Your task to perform on an android device: Open calendar and show me the second week of next month Image 0: 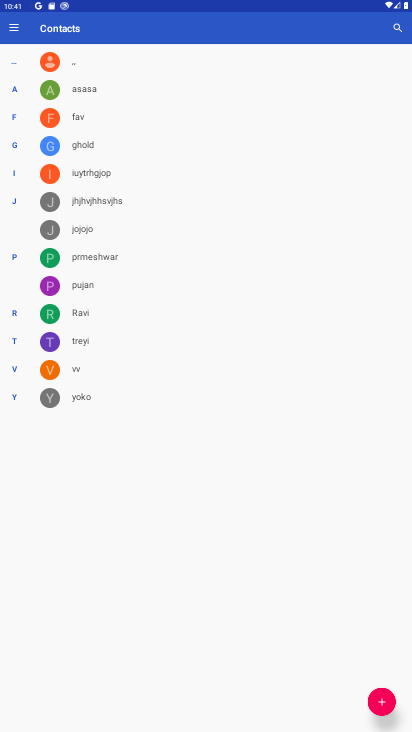
Step 0: press home button
Your task to perform on an android device: Open calendar and show me the second week of next month Image 1: 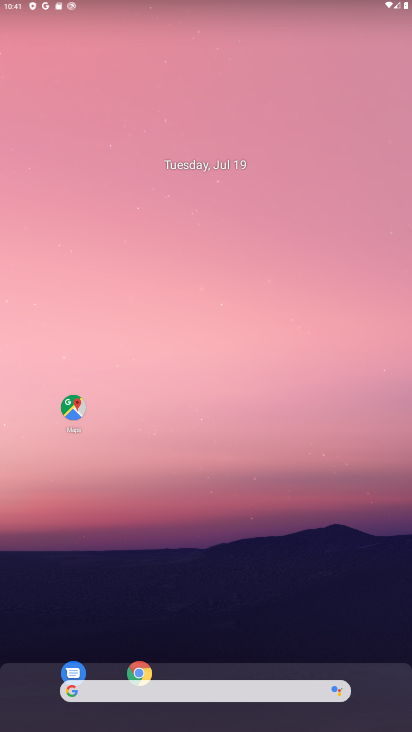
Step 1: drag from (385, 679) to (343, 89)
Your task to perform on an android device: Open calendar and show me the second week of next month Image 2: 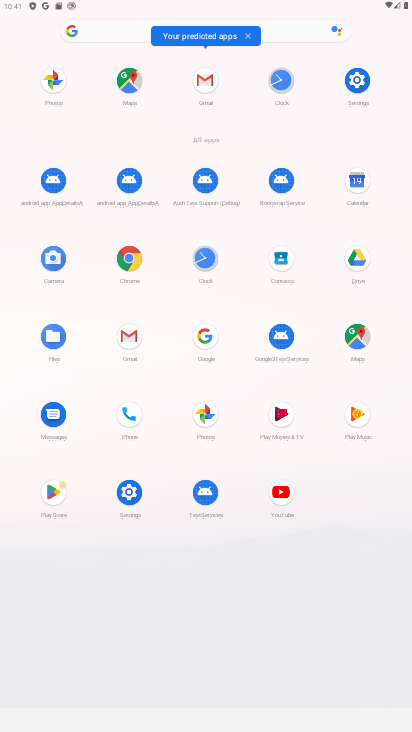
Step 2: click (357, 185)
Your task to perform on an android device: Open calendar and show me the second week of next month Image 3: 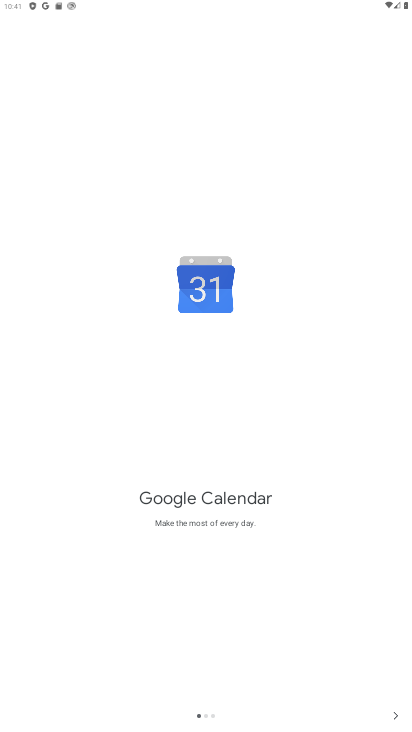
Step 3: click (393, 712)
Your task to perform on an android device: Open calendar and show me the second week of next month Image 4: 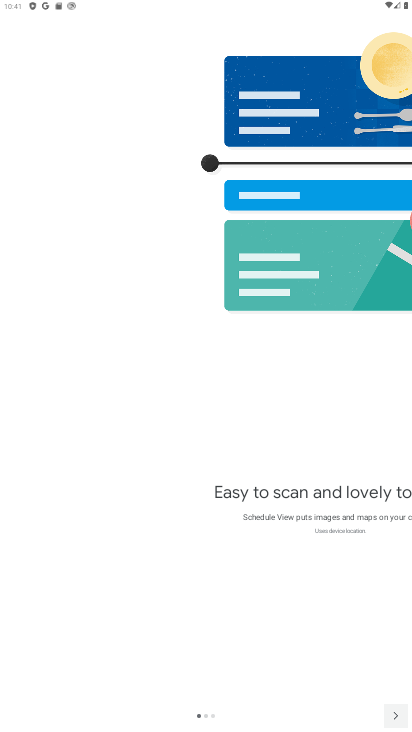
Step 4: click (393, 712)
Your task to perform on an android device: Open calendar and show me the second week of next month Image 5: 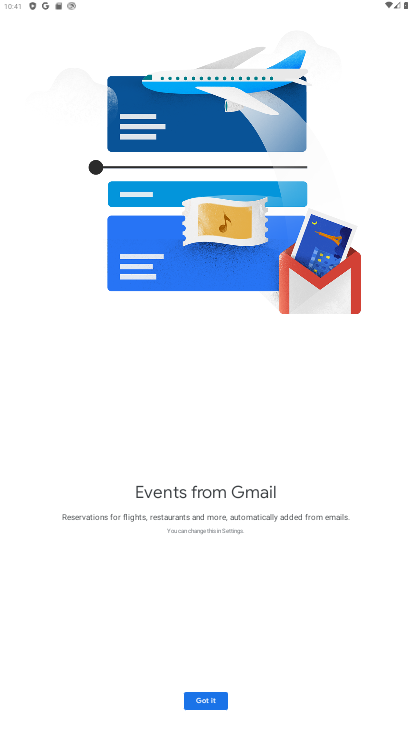
Step 5: click (199, 699)
Your task to perform on an android device: Open calendar and show me the second week of next month Image 6: 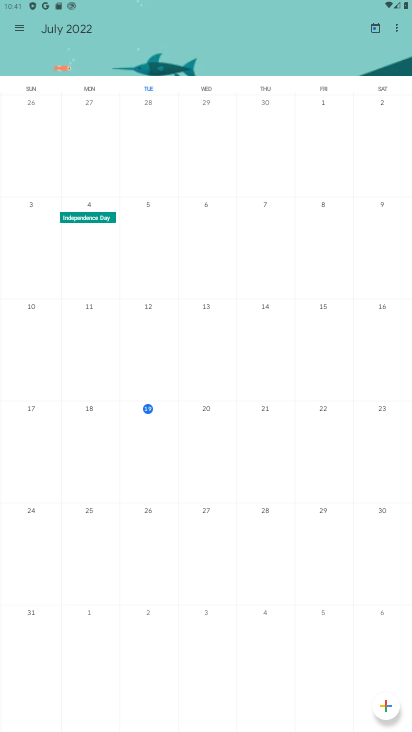
Step 6: click (14, 24)
Your task to perform on an android device: Open calendar and show me the second week of next month Image 7: 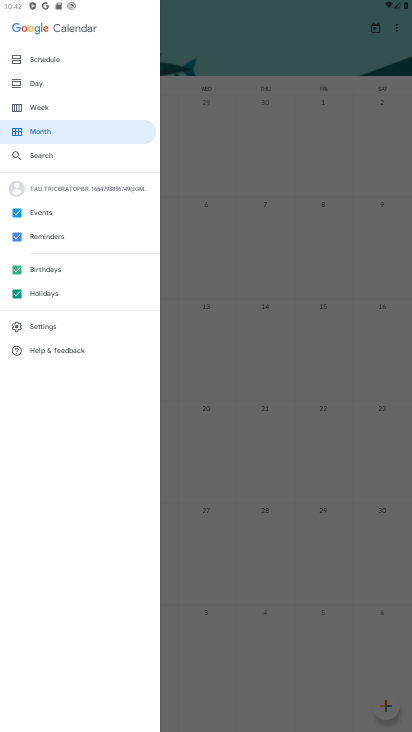
Step 7: click (35, 82)
Your task to perform on an android device: Open calendar and show me the second week of next month Image 8: 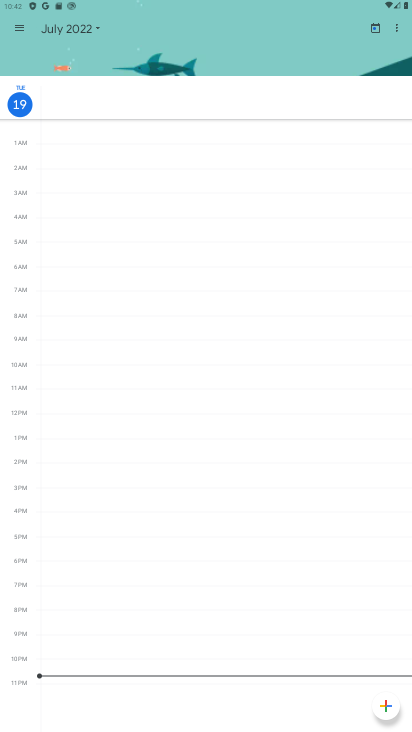
Step 8: click (21, 27)
Your task to perform on an android device: Open calendar and show me the second week of next month Image 9: 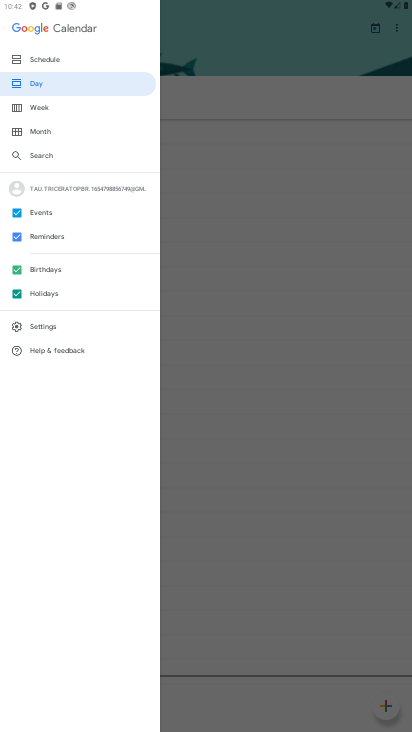
Step 9: click (39, 106)
Your task to perform on an android device: Open calendar and show me the second week of next month Image 10: 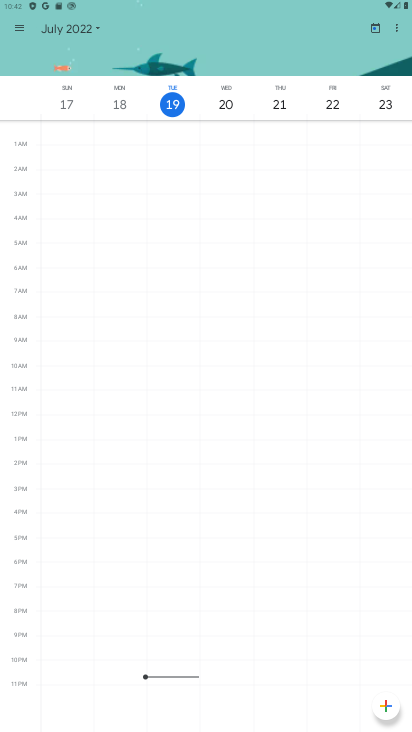
Step 10: click (96, 28)
Your task to perform on an android device: Open calendar and show me the second week of next month Image 11: 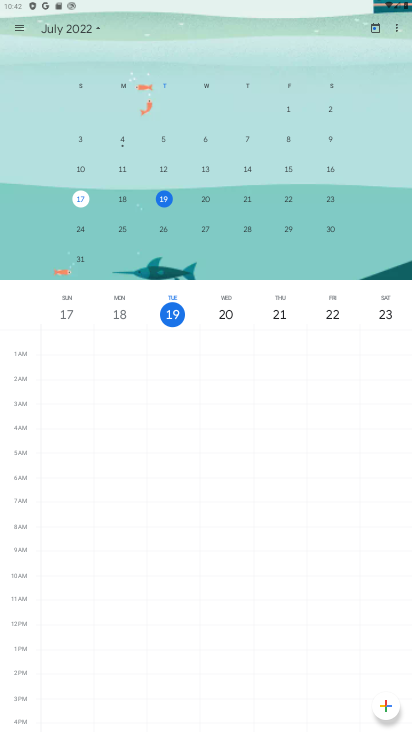
Step 11: drag from (330, 207) to (34, 210)
Your task to perform on an android device: Open calendar and show me the second week of next month Image 12: 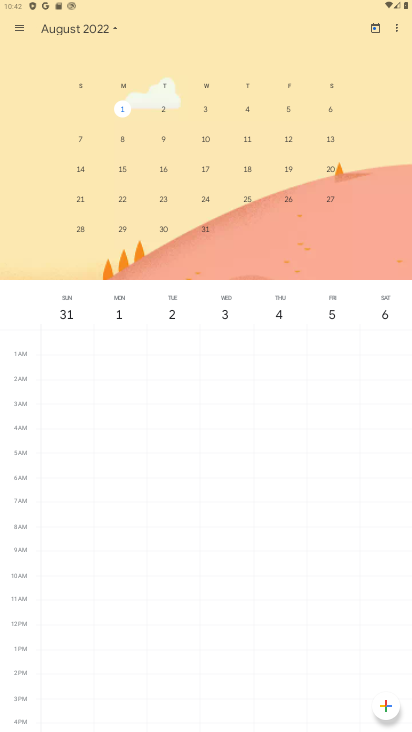
Step 12: click (76, 169)
Your task to perform on an android device: Open calendar and show me the second week of next month Image 13: 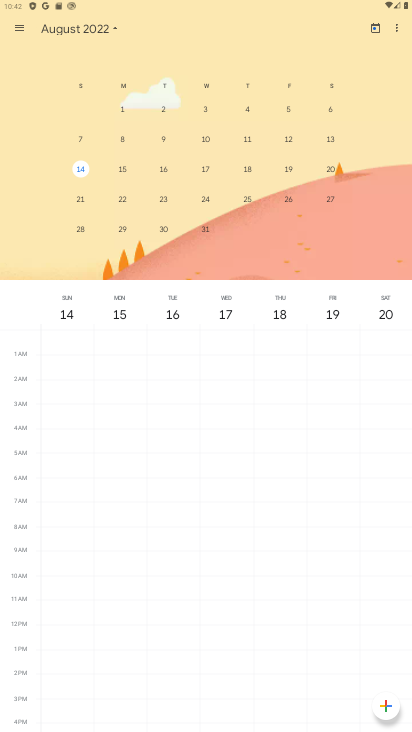
Step 13: task complete